Your task to perform on an android device: Open Chrome and go to settings Image 0: 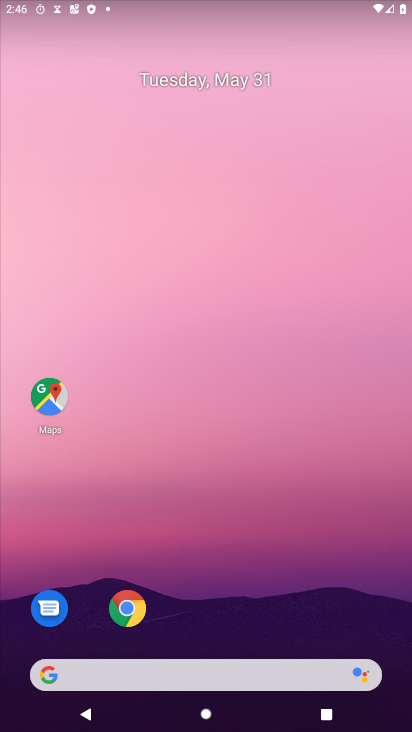
Step 0: click (122, 605)
Your task to perform on an android device: Open Chrome and go to settings Image 1: 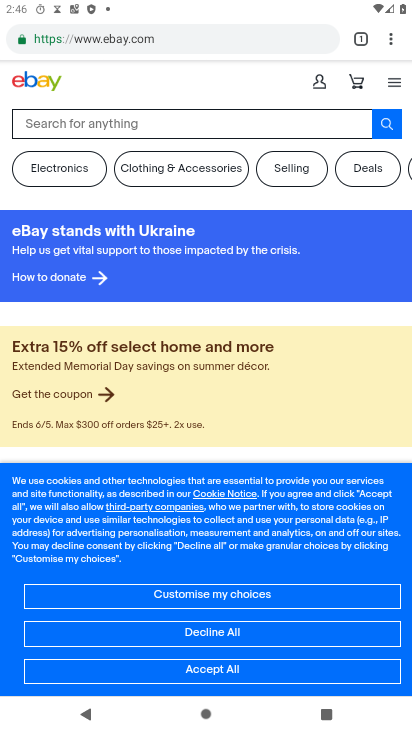
Step 1: click (393, 41)
Your task to perform on an android device: Open Chrome and go to settings Image 2: 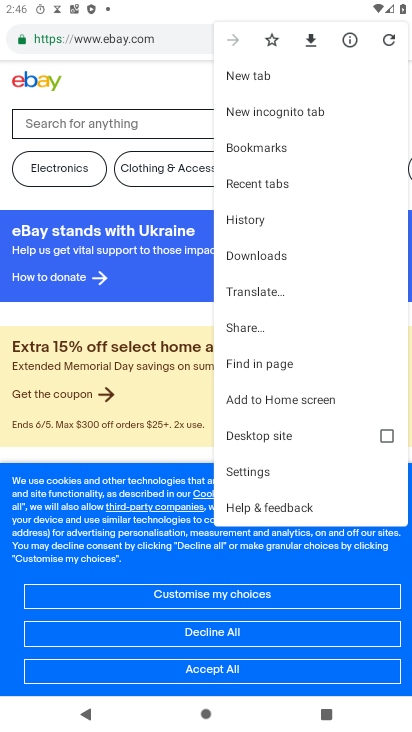
Step 2: click (242, 465)
Your task to perform on an android device: Open Chrome and go to settings Image 3: 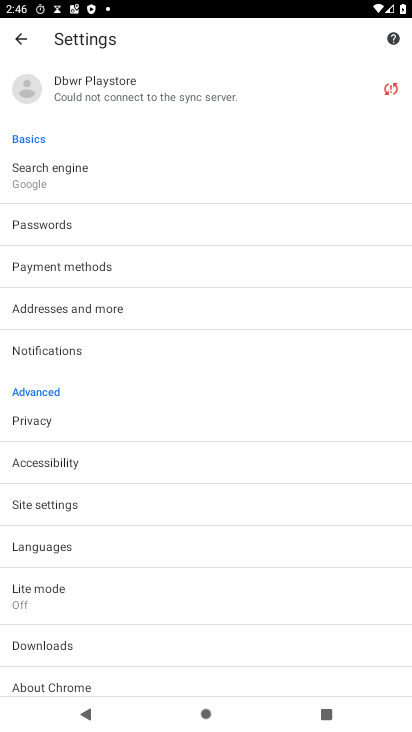
Step 3: task complete